Your task to perform on an android device: Open settings on Google Maps Image 0: 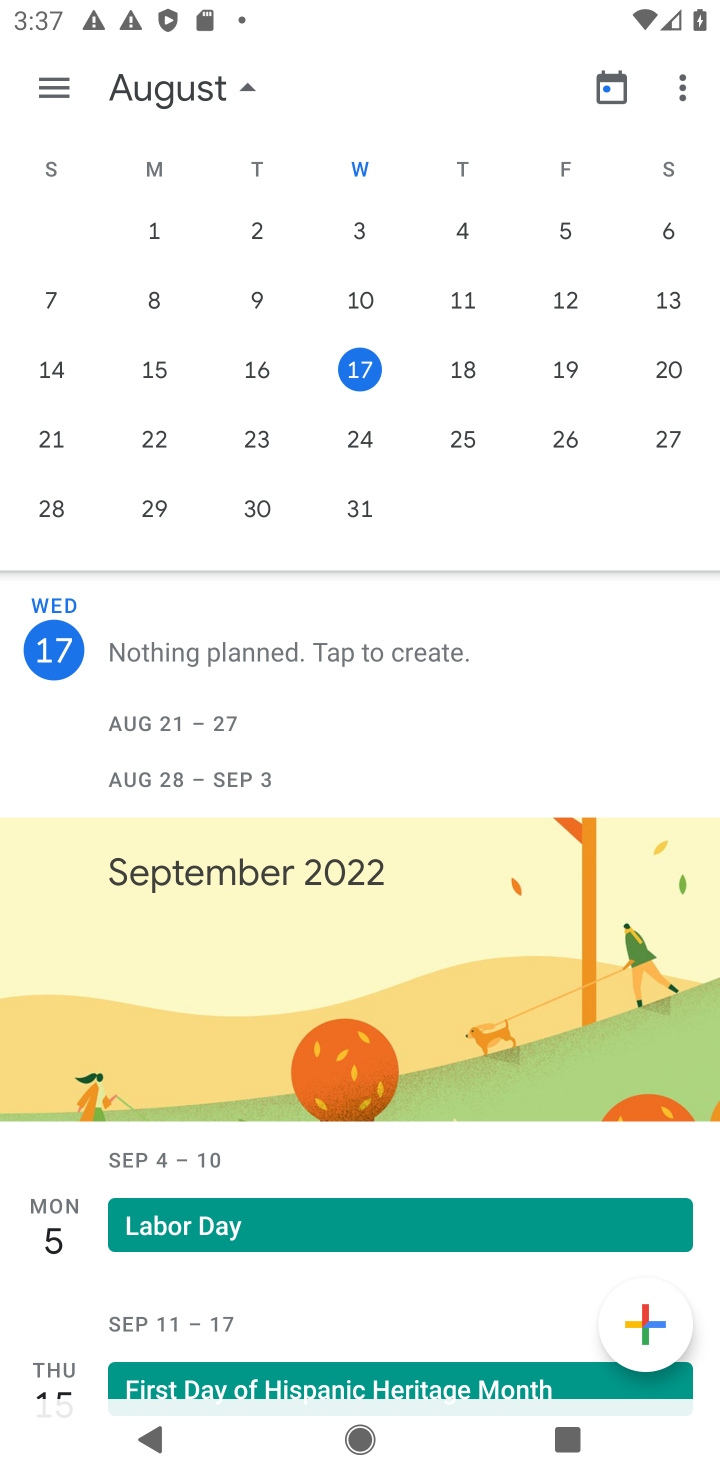
Step 0: press home button
Your task to perform on an android device: Open settings on Google Maps Image 1: 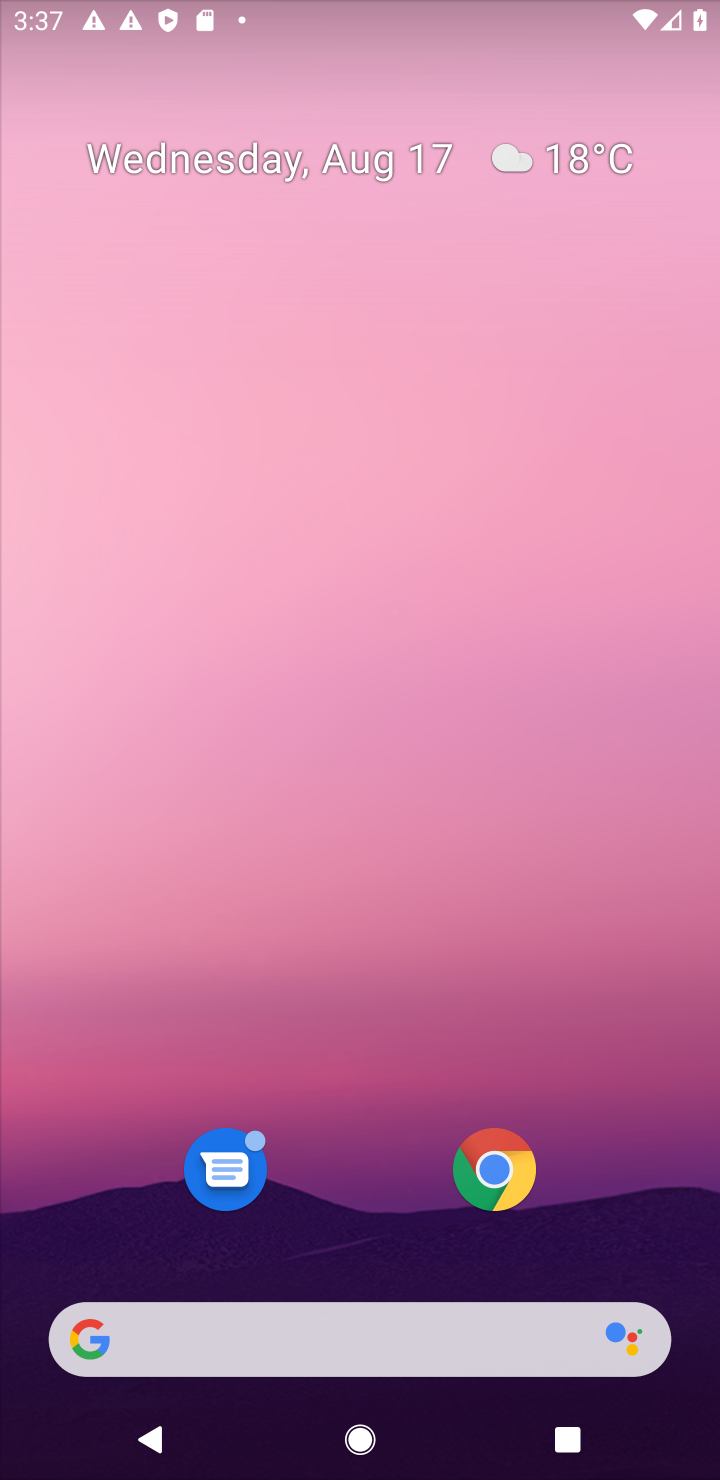
Step 1: drag from (389, 1067) to (382, 149)
Your task to perform on an android device: Open settings on Google Maps Image 2: 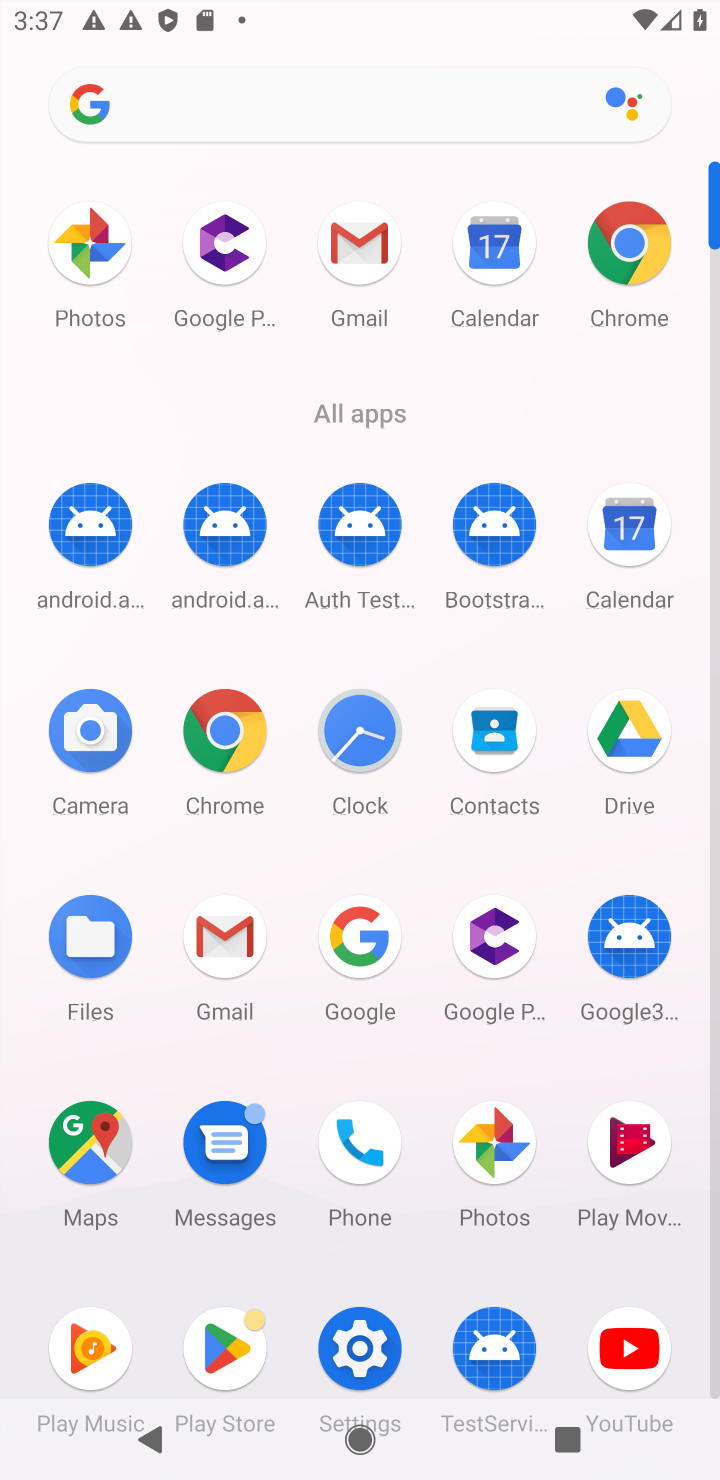
Step 2: click (377, 931)
Your task to perform on an android device: Open settings on Google Maps Image 3: 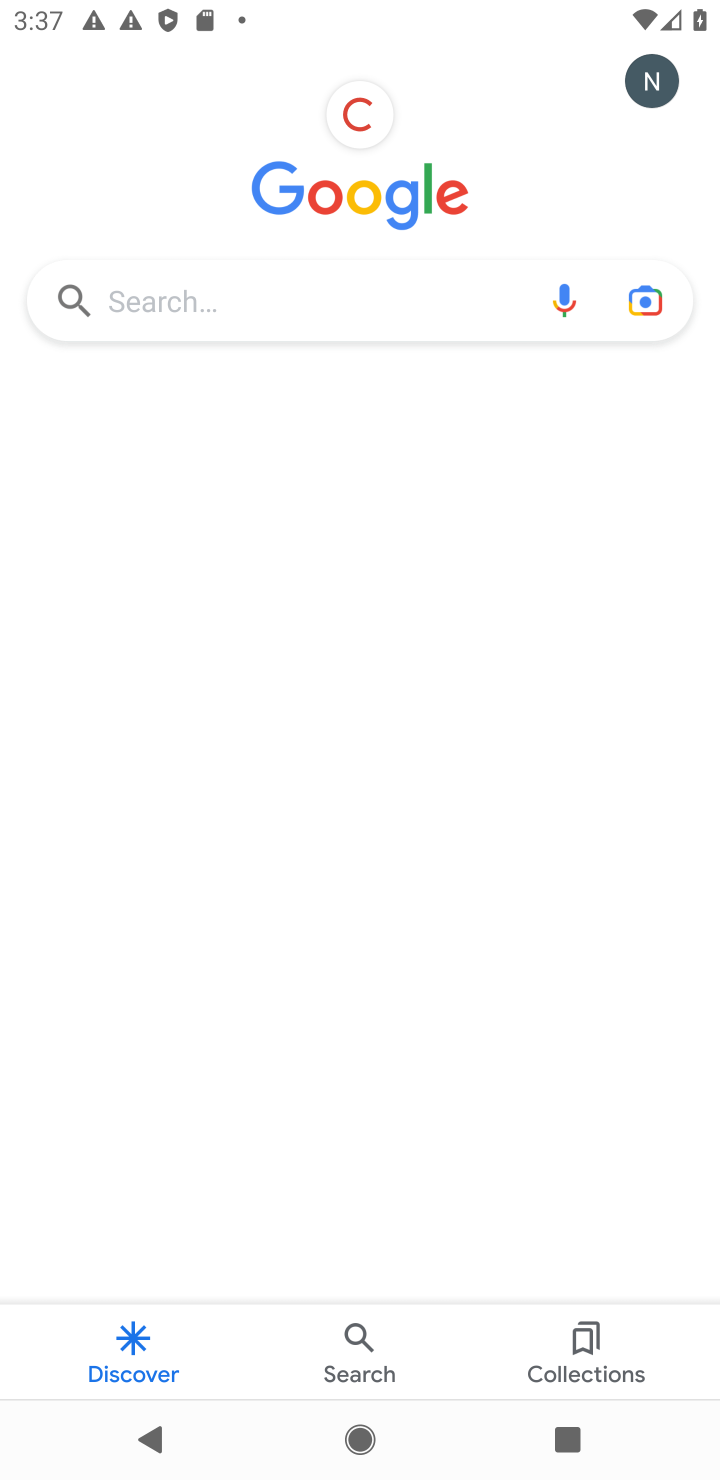
Step 3: drag from (648, 76) to (656, 637)
Your task to perform on an android device: Open settings on Google Maps Image 4: 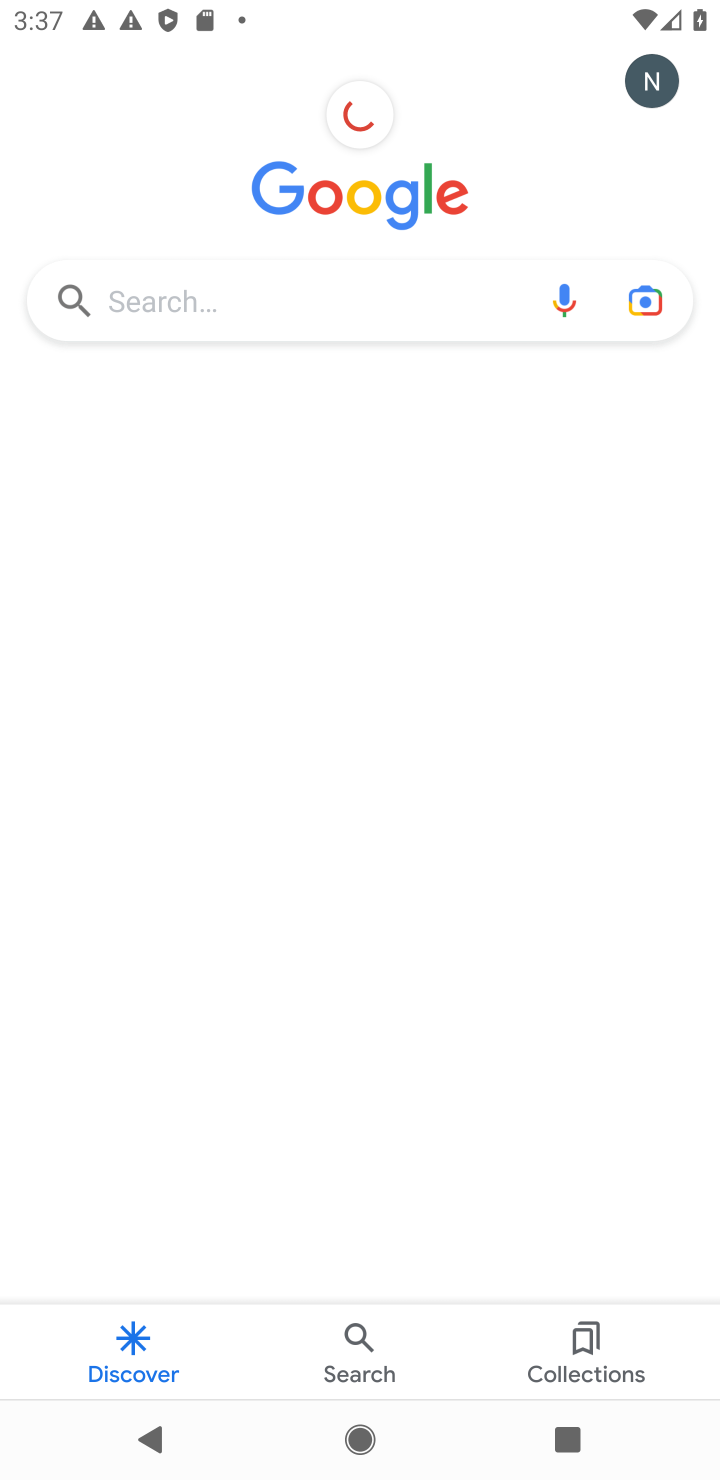
Step 4: click (654, 76)
Your task to perform on an android device: Open settings on Google Maps Image 5: 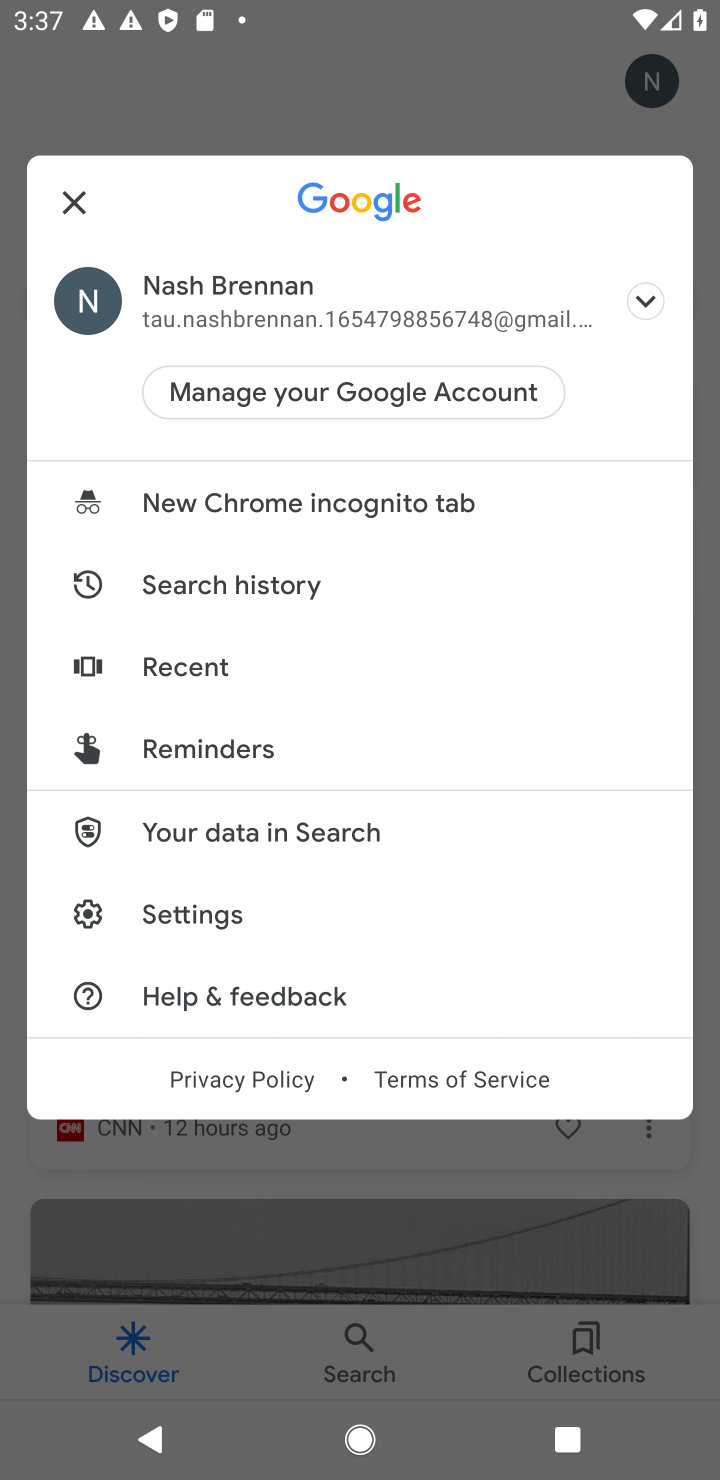
Step 5: click (197, 898)
Your task to perform on an android device: Open settings on Google Maps Image 6: 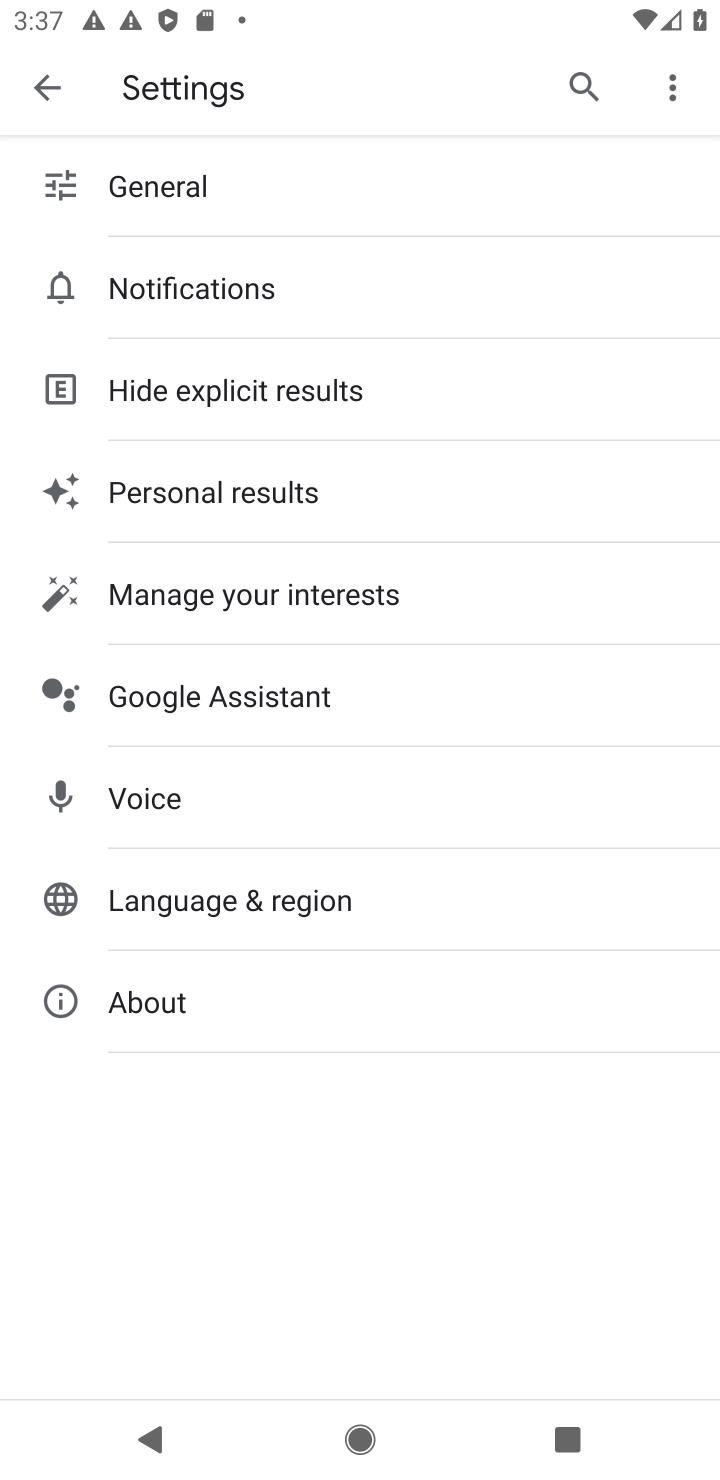
Step 6: task complete